Your task to perform on an android device: turn vacation reply on in the gmail app Image 0: 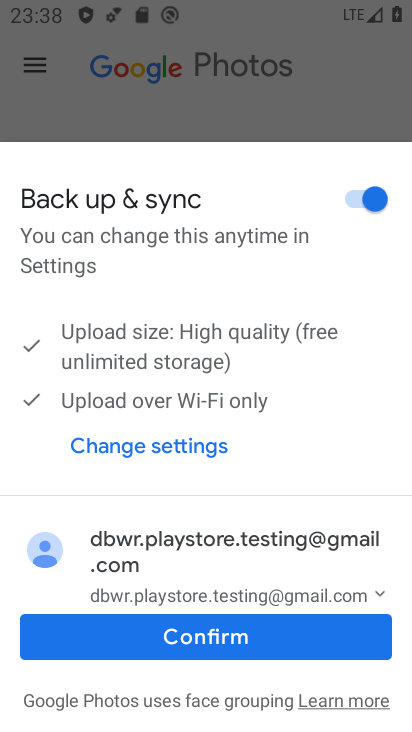
Step 0: press home button
Your task to perform on an android device: turn vacation reply on in the gmail app Image 1: 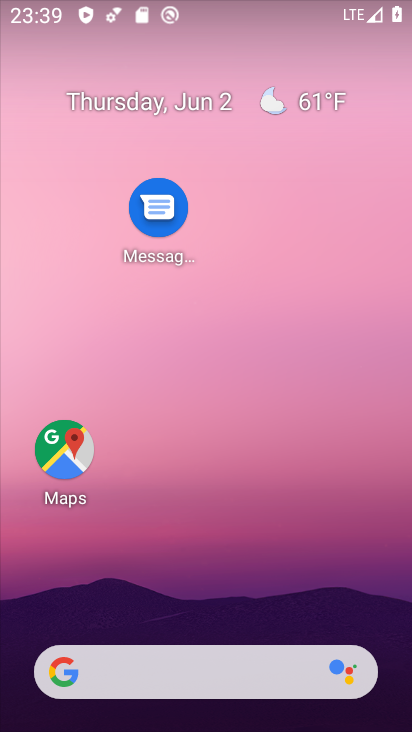
Step 1: drag from (201, 629) to (195, 38)
Your task to perform on an android device: turn vacation reply on in the gmail app Image 2: 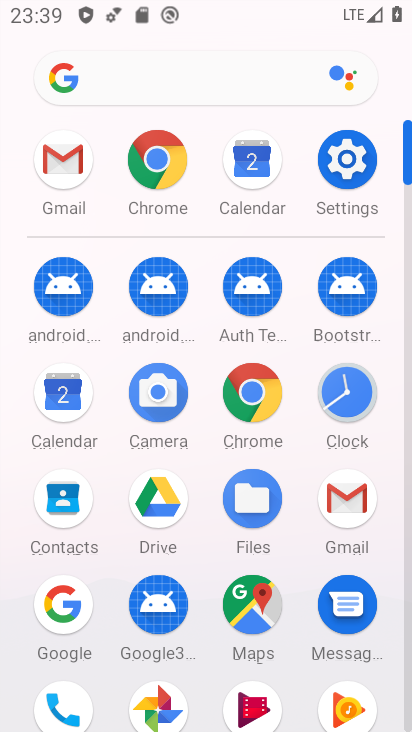
Step 2: click (345, 486)
Your task to perform on an android device: turn vacation reply on in the gmail app Image 3: 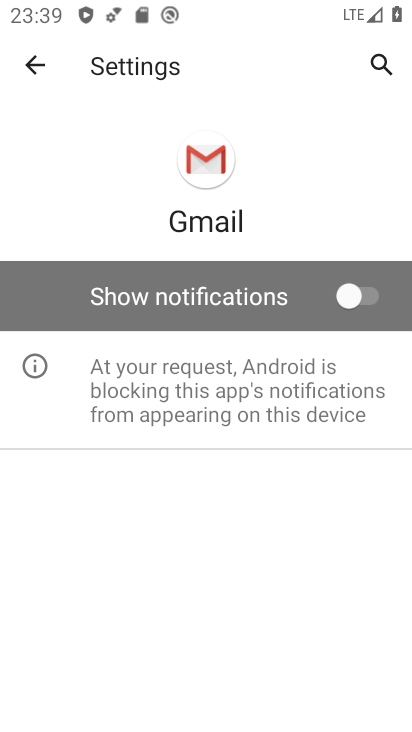
Step 3: click (23, 62)
Your task to perform on an android device: turn vacation reply on in the gmail app Image 4: 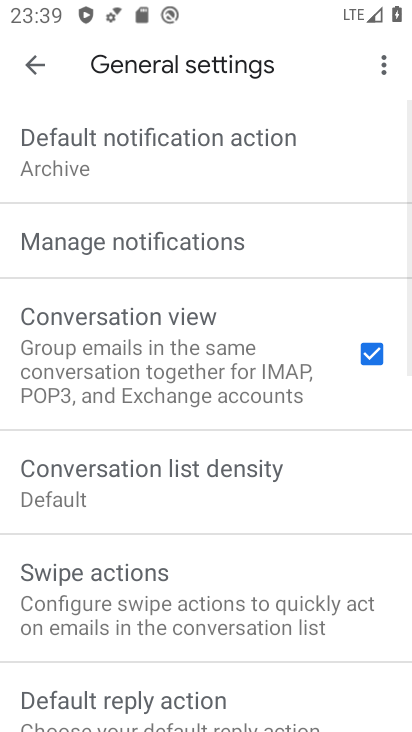
Step 4: click (26, 62)
Your task to perform on an android device: turn vacation reply on in the gmail app Image 5: 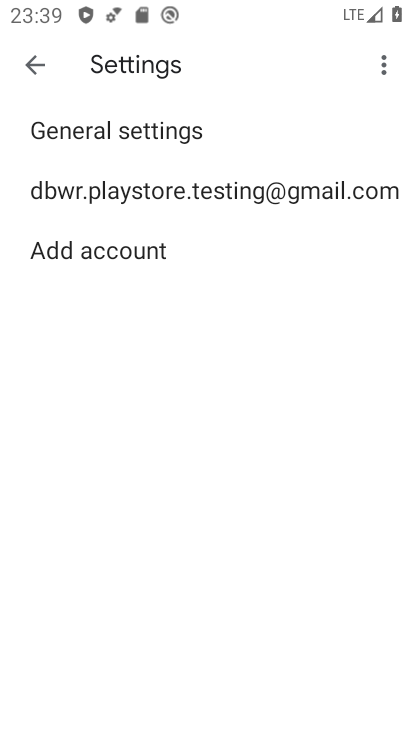
Step 5: click (90, 214)
Your task to perform on an android device: turn vacation reply on in the gmail app Image 6: 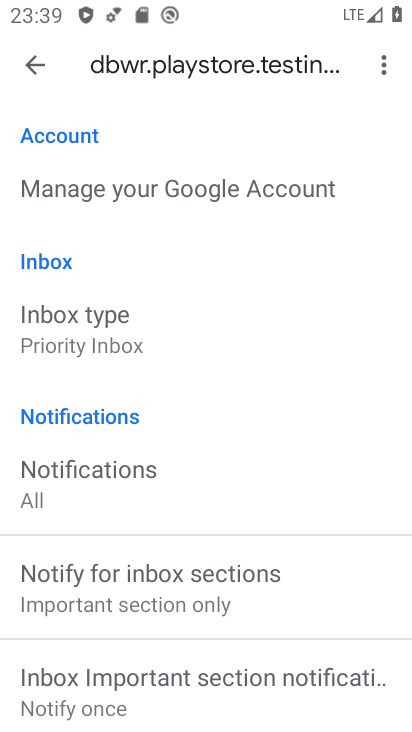
Step 6: drag from (157, 506) to (153, 150)
Your task to perform on an android device: turn vacation reply on in the gmail app Image 7: 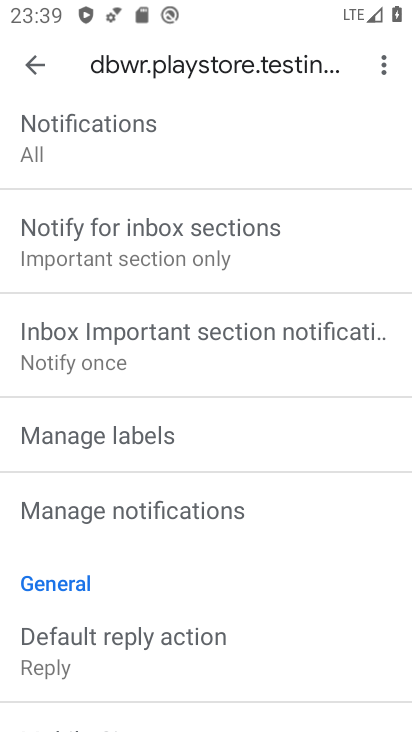
Step 7: drag from (145, 589) to (107, 201)
Your task to perform on an android device: turn vacation reply on in the gmail app Image 8: 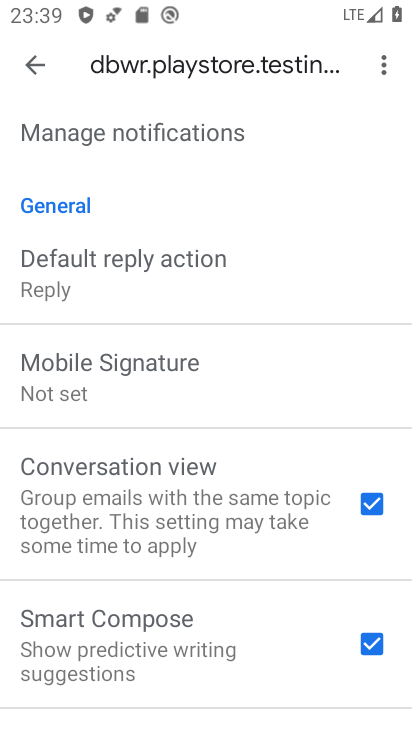
Step 8: drag from (173, 554) to (115, 146)
Your task to perform on an android device: turn vacation reply on in the gmail app Image 9: 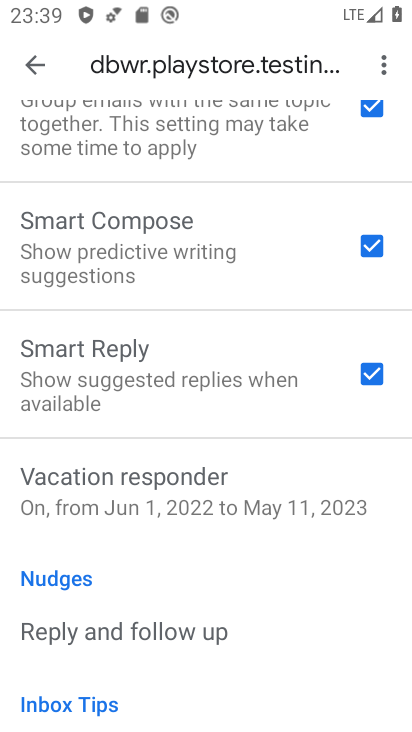
Step 9: click (142, 462)
Your task to perform on an android device: turn vacation reply on in the gmail app Image 10: 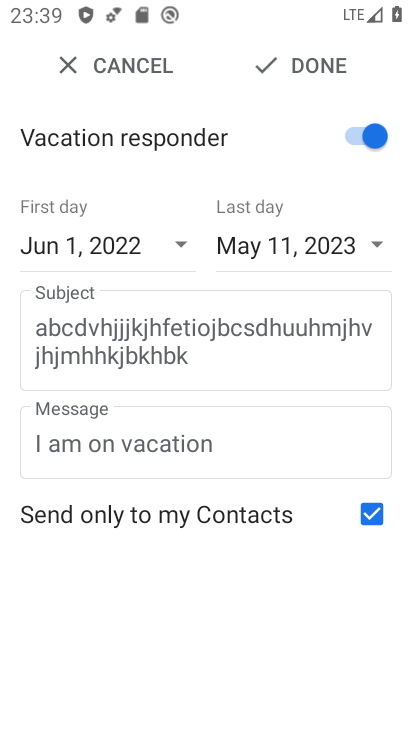
Step 10: click (305, 45)
Your task to perform on an android device: turn vacation reply on in the gmail app Image 11: 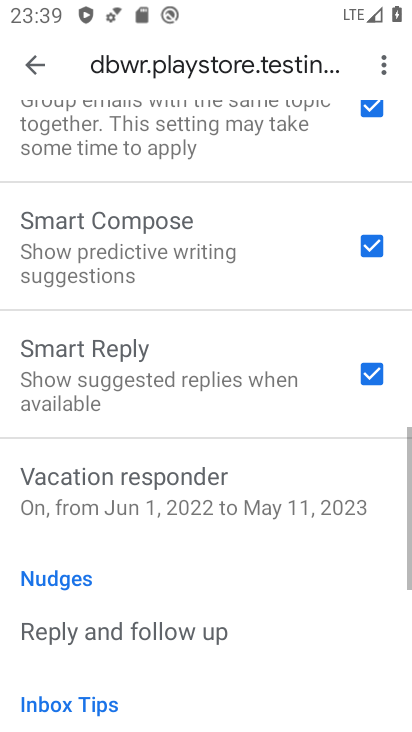
Step 11: task complete